Your task to perform on an android device: Go to settings Image 0: 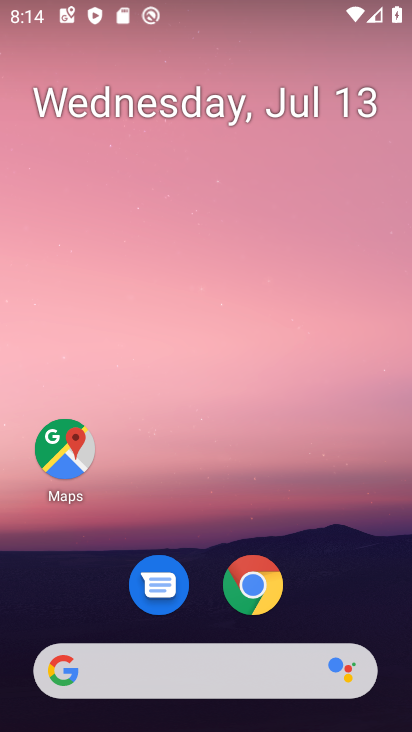
Step 0: drag from (316, 557) to (355, 22)
Your task to perform on an android device: Go to settings Image 1: 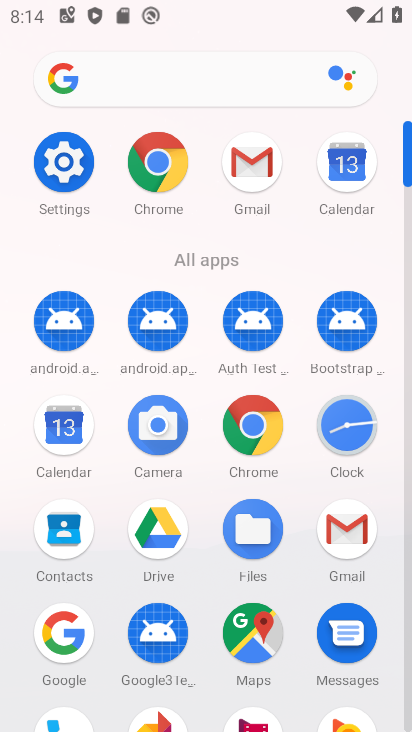
Step 1: click (84, 161)
Your task to perform on an android device: Go to settings Image 2: 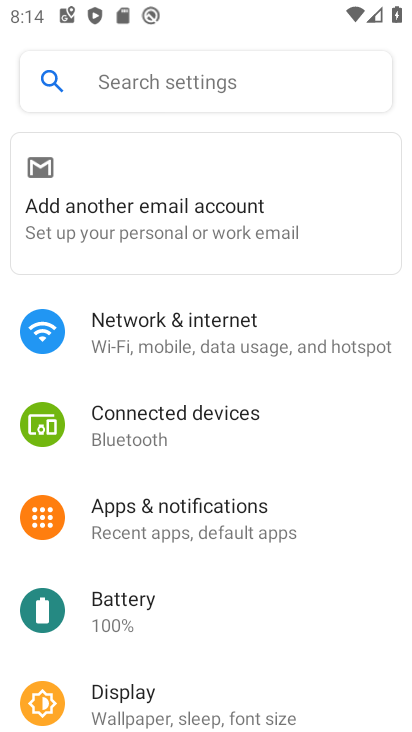
Step 2: task complete